Your task to perform on an android device: Go to Yahoo.com Image 0: 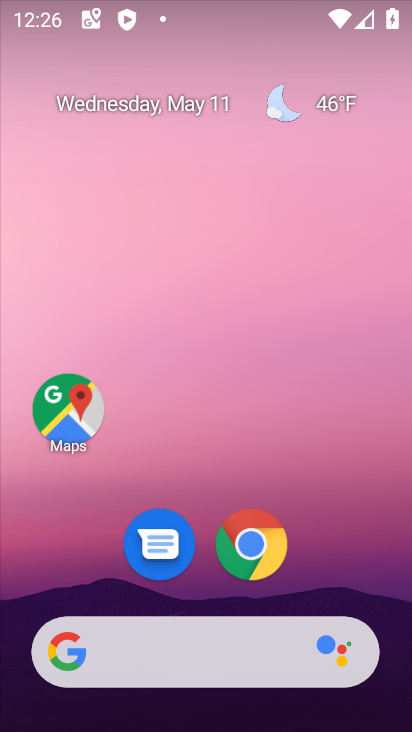
Step 0: click (248, 541)
Your task to perform on an android device: Go to Yahoo.com Image 1: 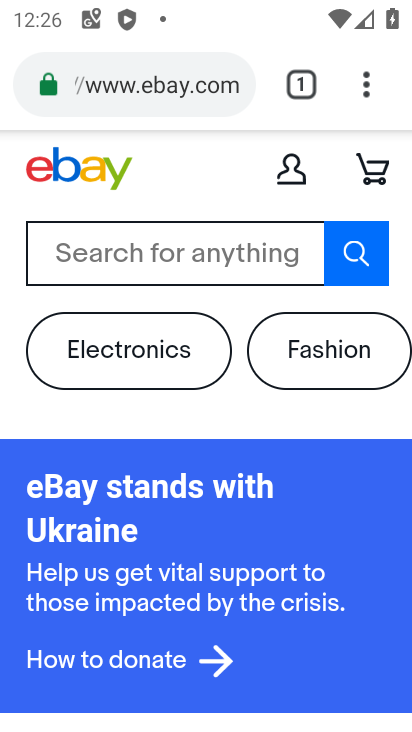
Step 1: click (175, 79)
Your task to perform on an android device: Go to Yahoo.com Image 2: 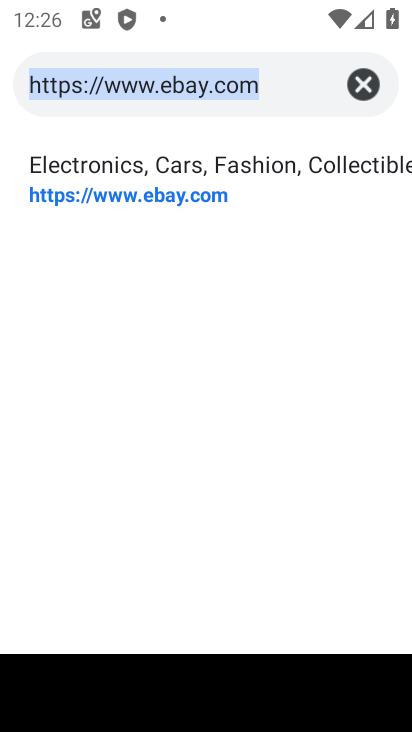
Step 2: click (355, 83)
Your task to perform on an android device: Go to Yahoo.com Image 3: 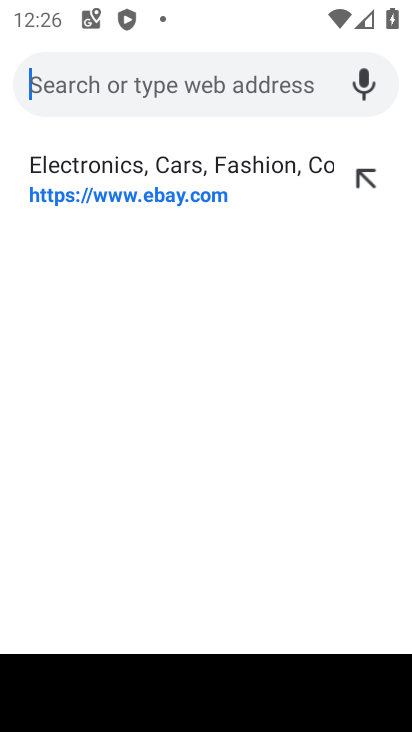
Step 3: type "yahoo.com"
Your task to perform on an android device: Go to Yahoo.com Image 4: 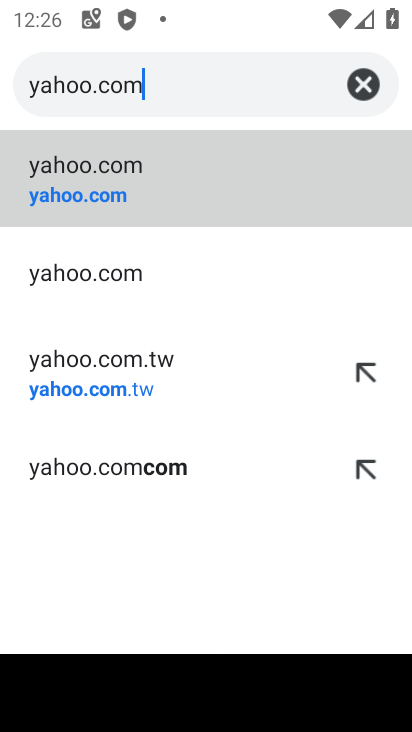
Step 4: click (72, 171)
Your task to perform on an android device: Go to Yahoo.com Image 5: 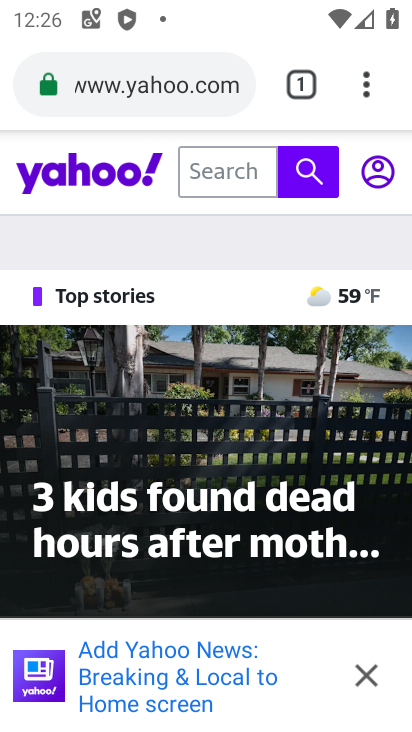
Step 5: task complete